Your task to perform on an android device: empty trash in google photos Image 0: 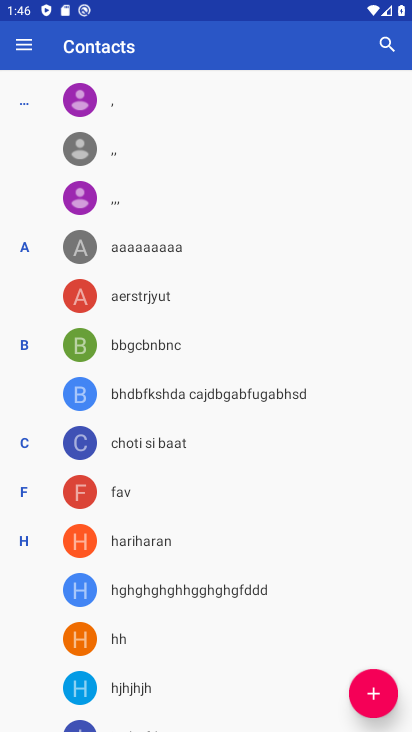
Step 0: press home button
Your task to perform on an android device: empty trash in google photos Image 1: 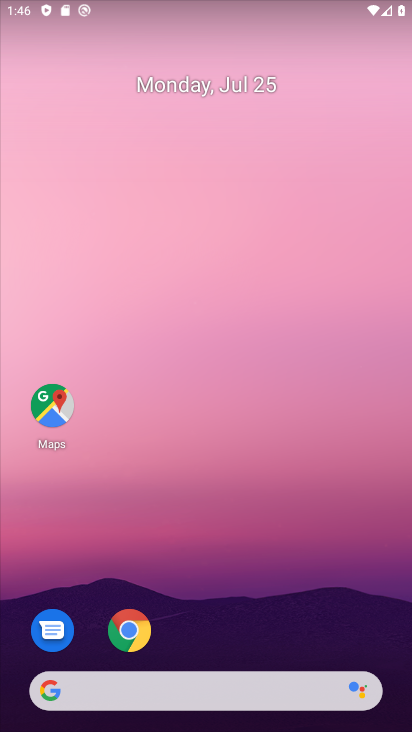
Step 1: drag from (219, 629) to (202, 174)
Your task to perform on an android device: empty trash in google photos Image 2: 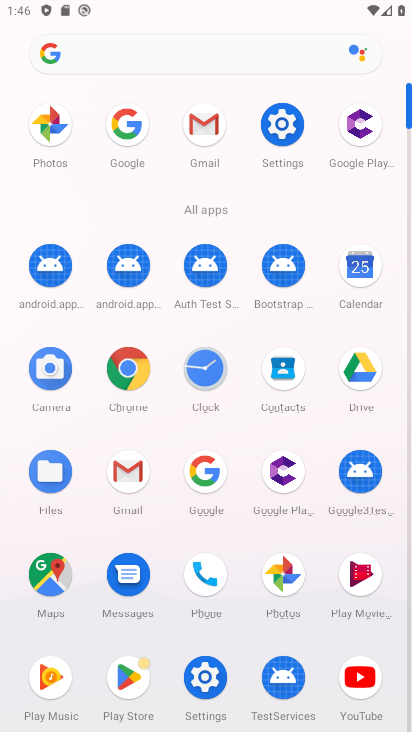
Step 2: click (48, 126)
Your task to perform on an android device: empty trash in google photos Image 3: 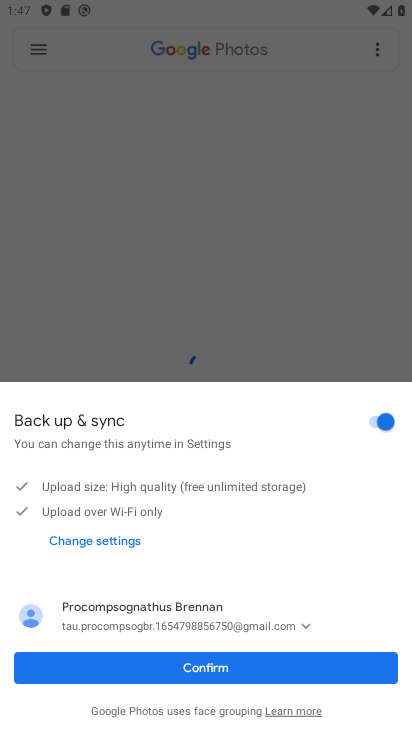
Step 3: click (199, 651)
Your task to perform on an android device: empty trash in google photos Image 4: 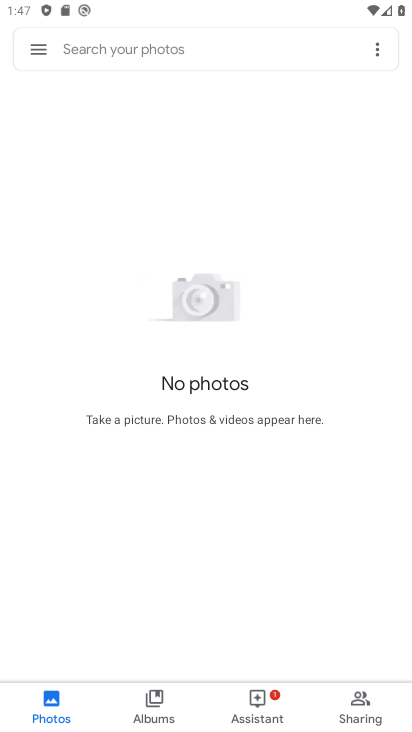
Step 4: click (42, 39)
Your task to perform on an android device: empty trash in google photos Image 5: 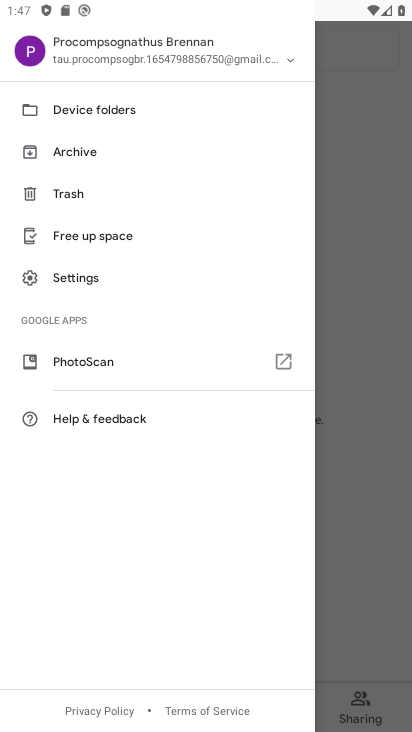
Step 5: click (87, 199)
Your task to perform on an android device: empty trash in google photos Image 6: 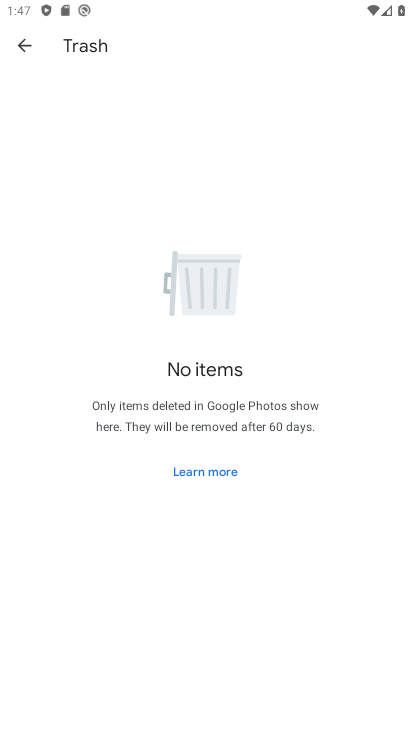
Step 6: task complete